Your task to perform on an android device: open app "Gmail" (install if not already installed) Image 0: 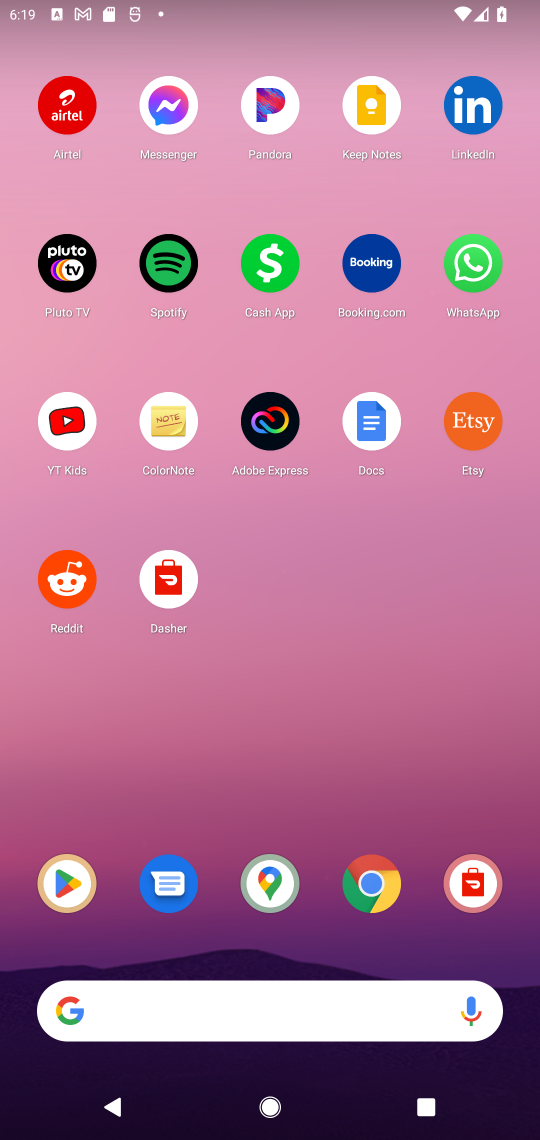
Step 0: click (87, 882)
Your task to perform on an android device: open app "Gmail" (install if not already installed) Image 1: 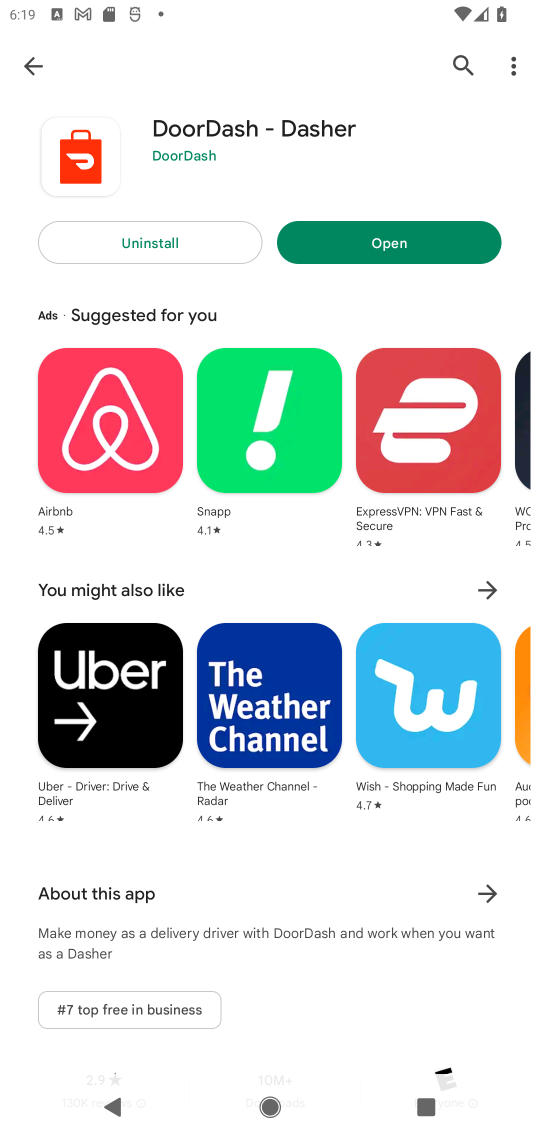
Step 1: click (26, 66)
Your task to perform on an android device: open app "Gmail" (install if not already installed) Image 2: 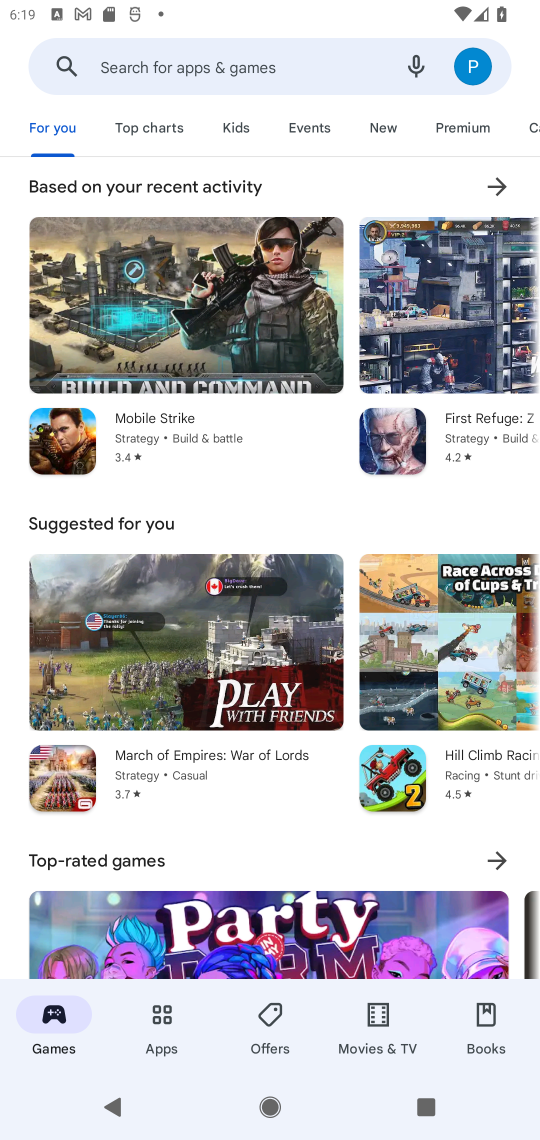
Step 2: click (187, 53)
Your task to perform on an android device: open app "Gmail" (install if not already installed) Image 3: 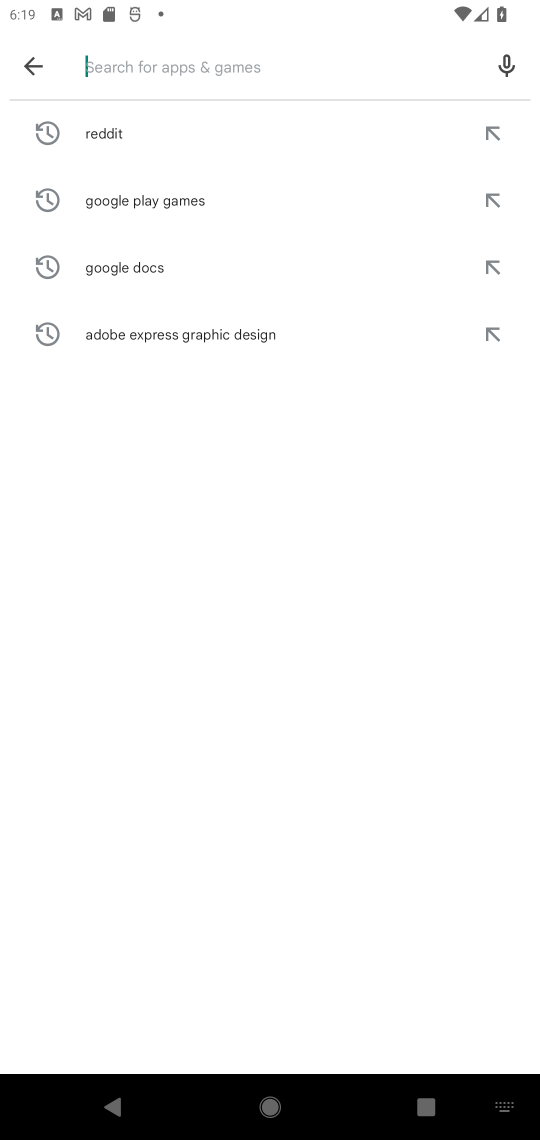
Step 3: type "Gmail"
Your task to perform on an android device: open app "Gmail" (install if not already installed) Image 4: 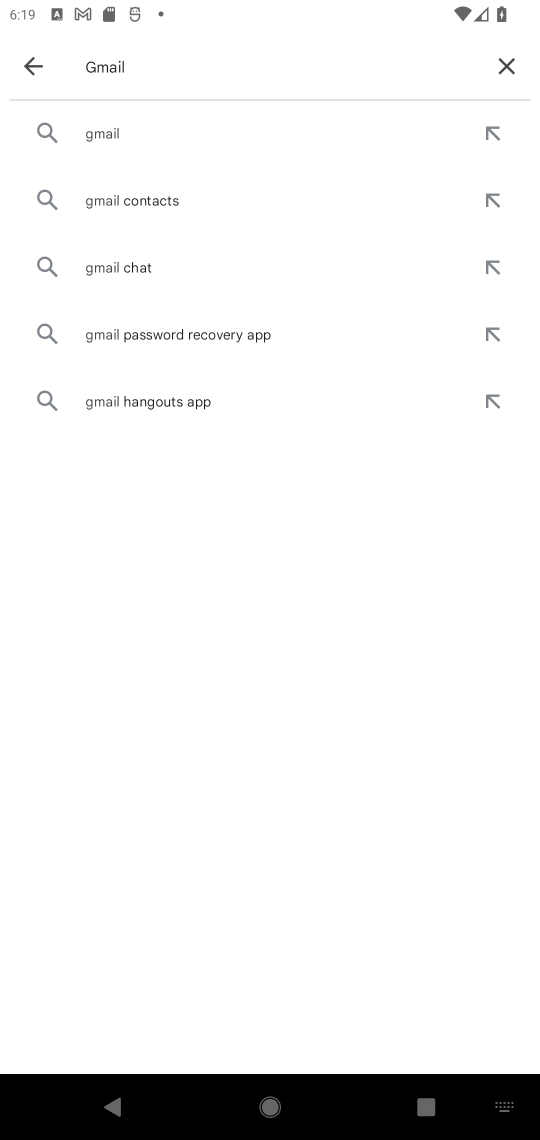
Step 4: click (119, 138)
Your task to perform on an android device: open app "Gmail" (install if not already installed) Image 5: 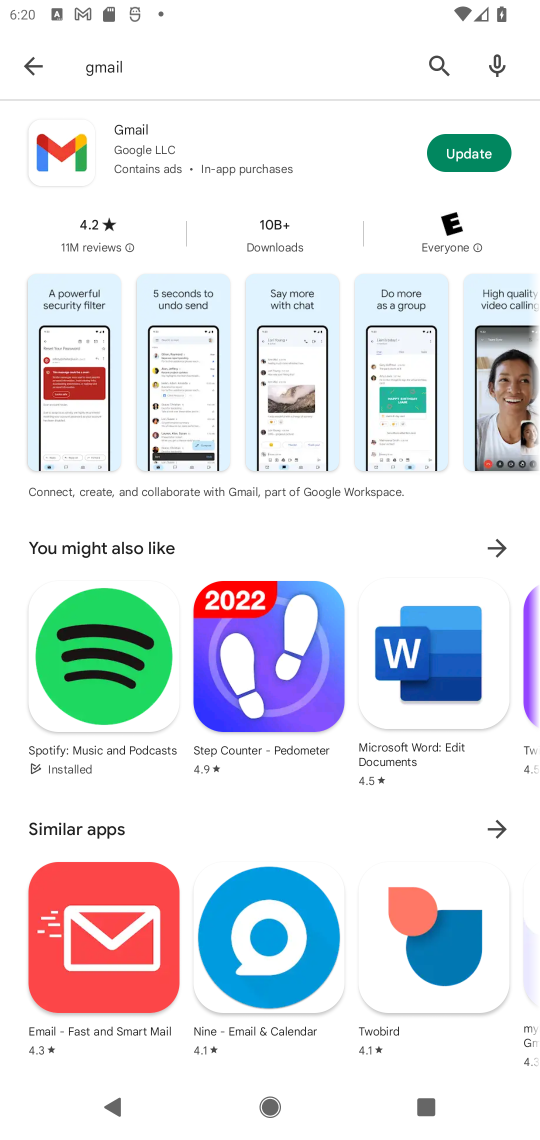
Step 5: click (473, 154)
Your task to perform on an android device: open app "Gmail" (install if not already installed) Image 6: 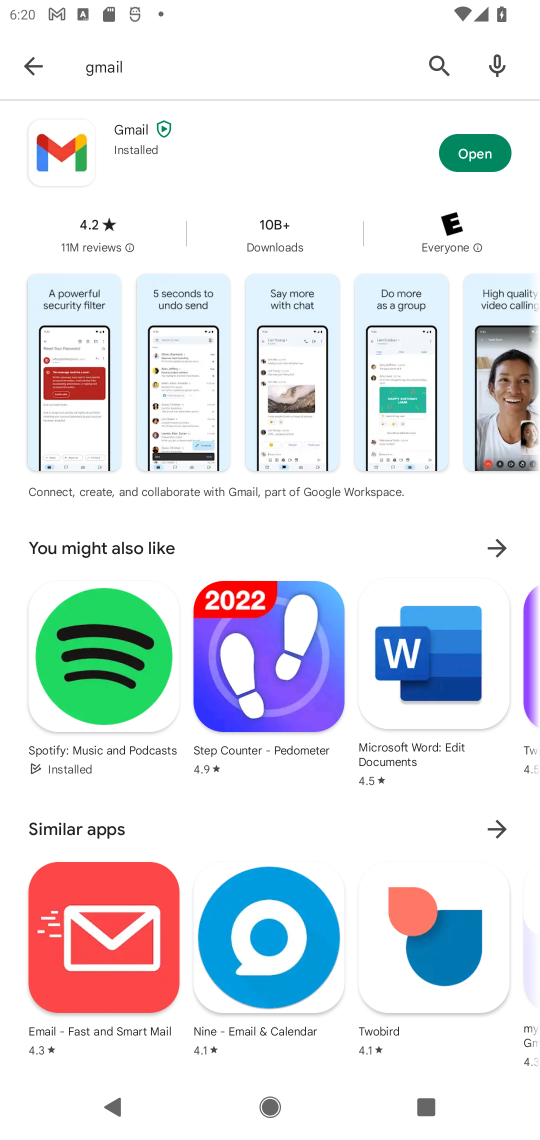
Step 6: click (473, 154)
Your task to perform on an android device: open app "Gmail" (install if not already installed) Image 7: 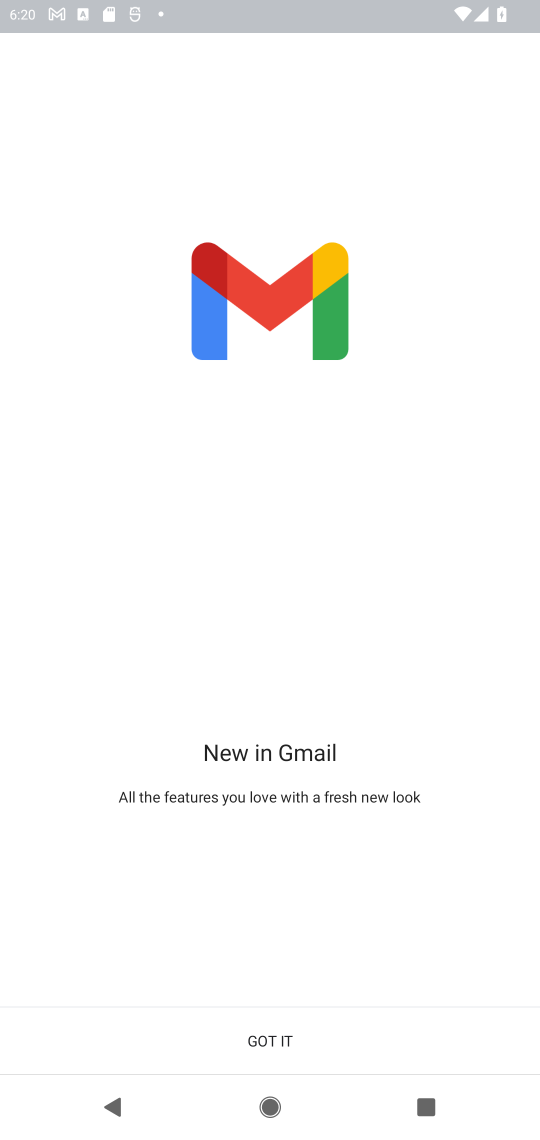
Step 7: click (300, 1034)
Your task to perform on an android device: open app "Gmail" (install if not already installed) Image 8: 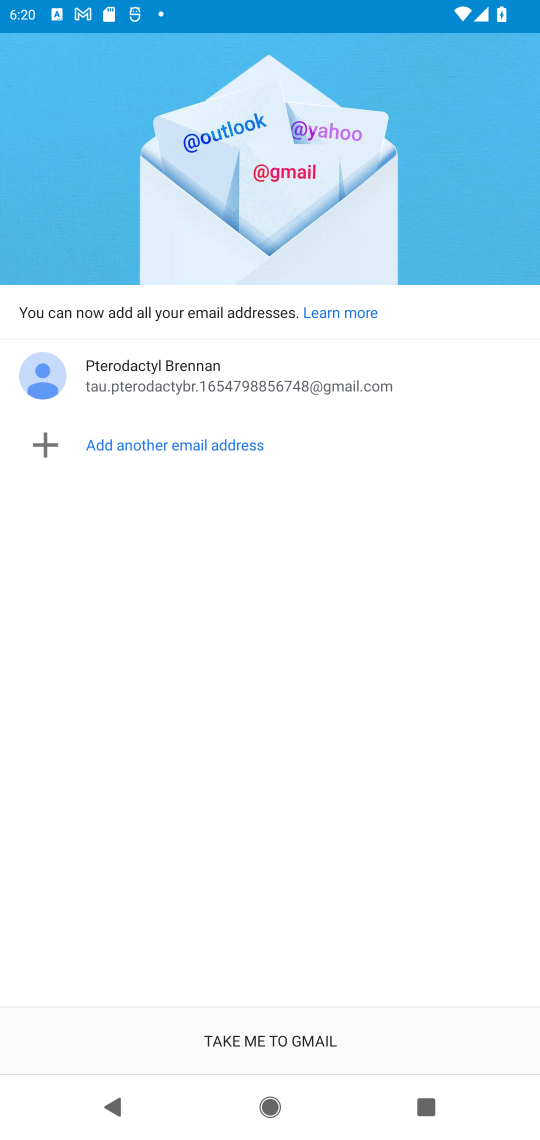
Step 8: click (287, 1034)
Your task to perform on an android device: open app "Gmail" (install if not already installed) Image 9: 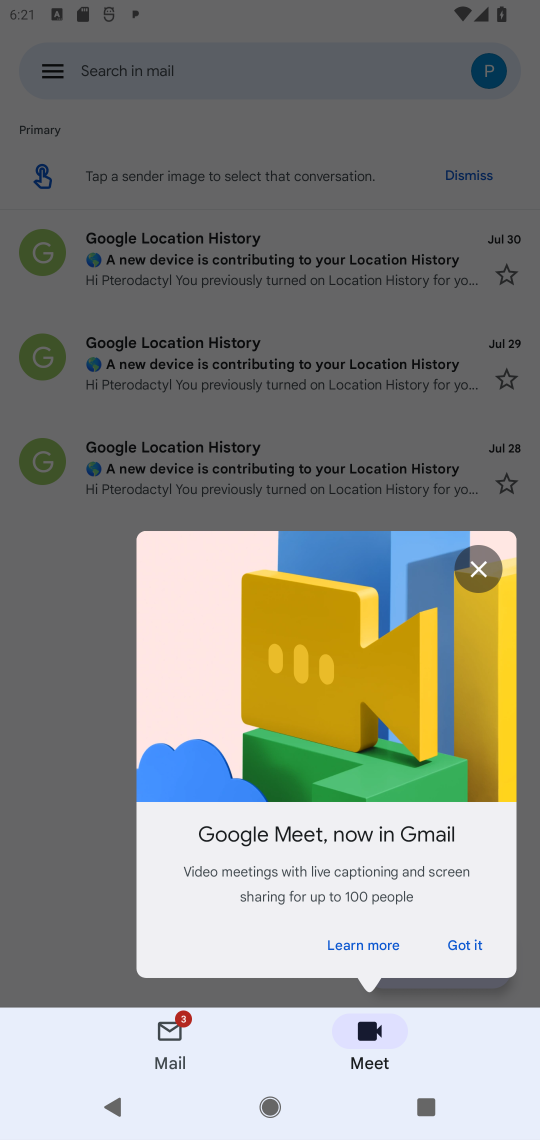
Step 9: click (466, 937)
Your task to perform on an android device: open app "Gmail" (install if not already installed) Image 10: 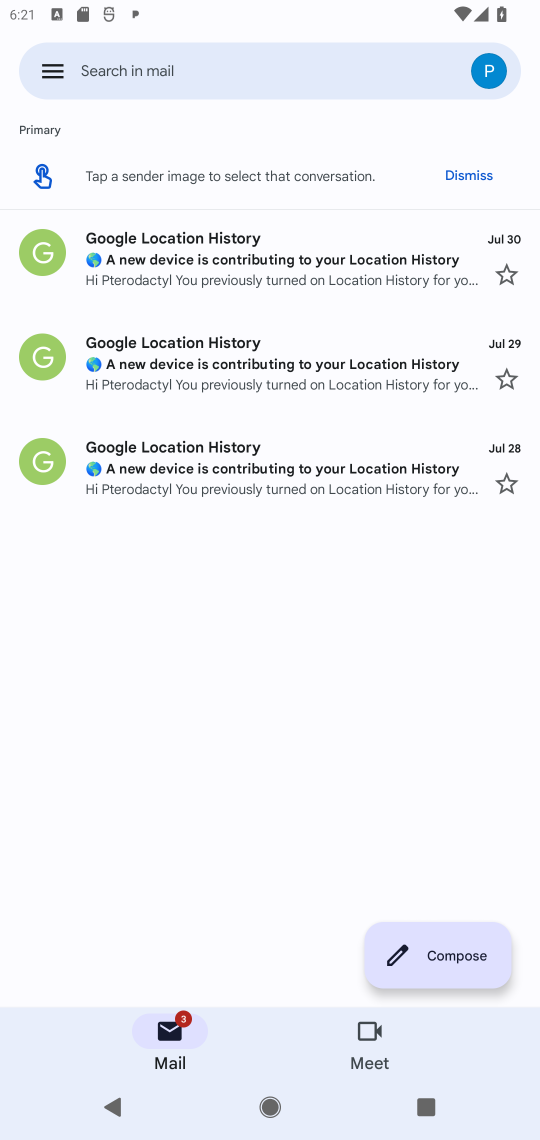
Step 10: task complete